Your task to perform on an android device: find photos in the google photos app Image 0: 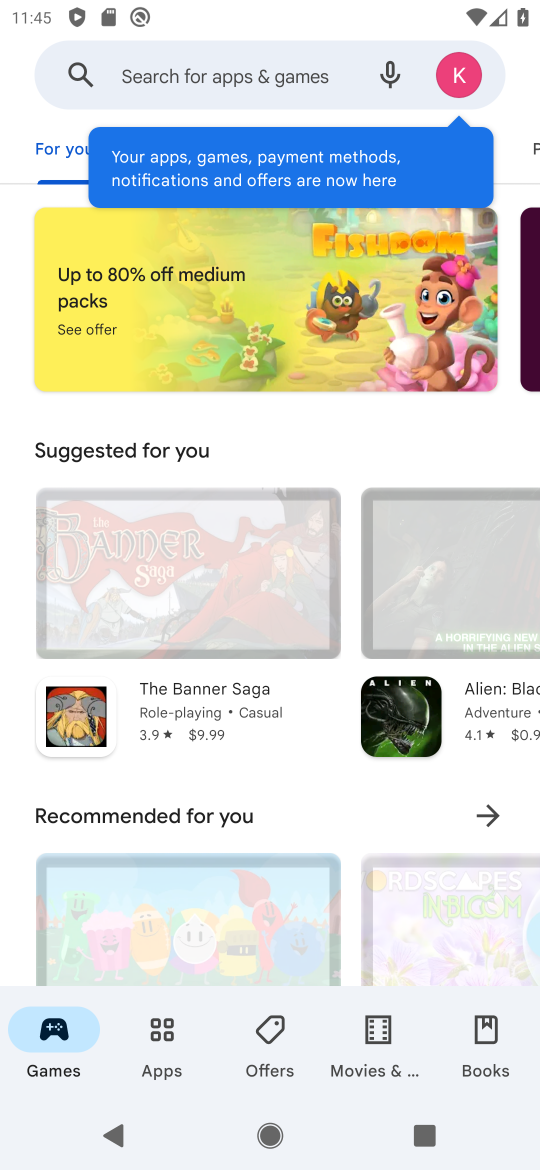
Step 0: press home button
Your task to perform on an android device: find photos in the google photos app Image 1: 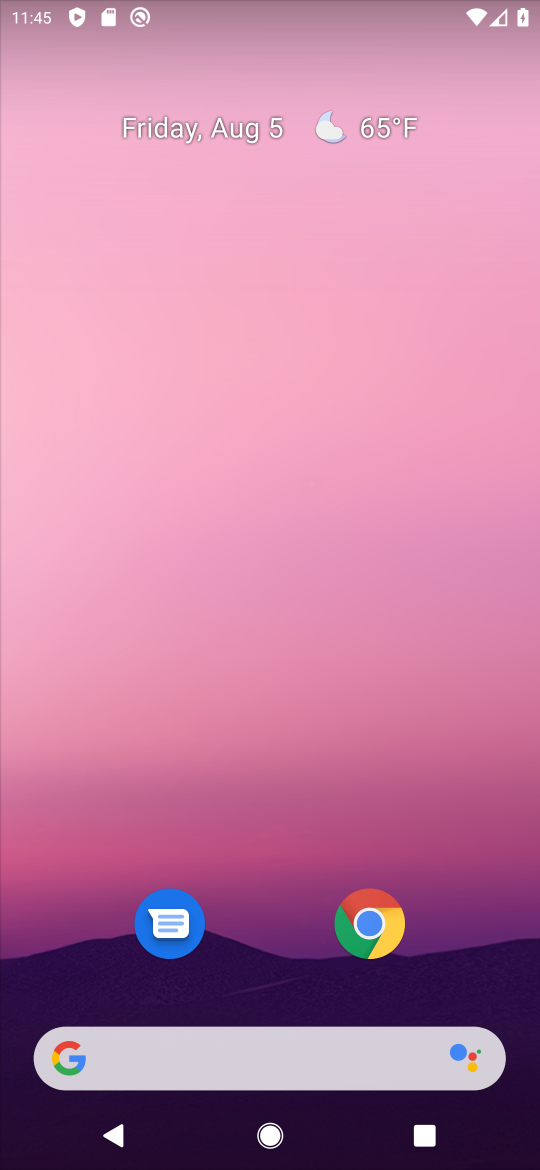
Step 1: drag from (447, 647) to (415, 326)
Your task to perform on an android device: find photos in the google photos app Image 2: 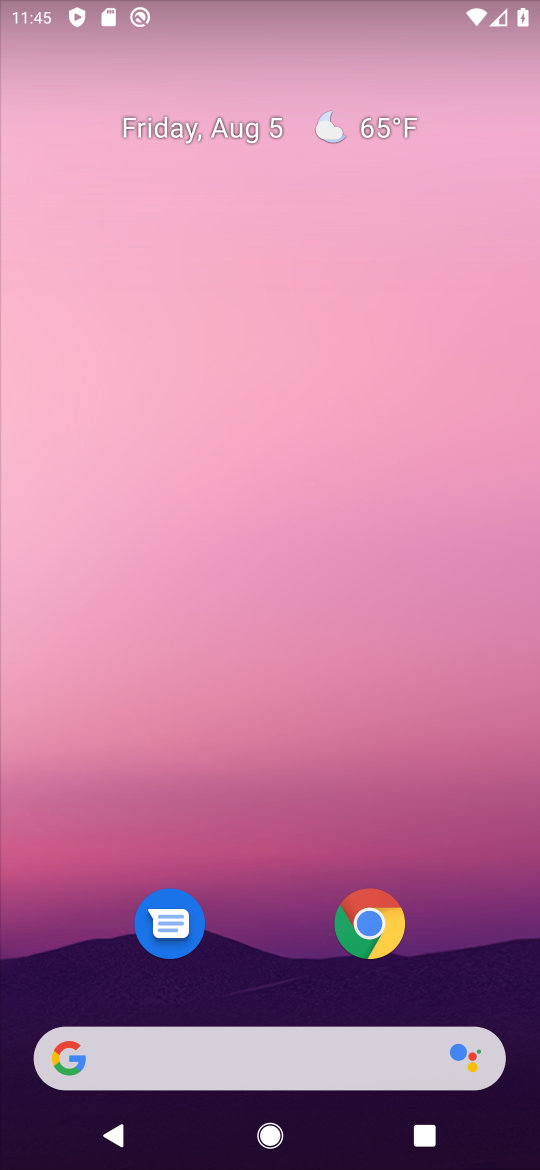
Step 2: drag from (447, 948) to (303, 53)
Your task to perform on an android device: find photos in the google photos app Image 3: 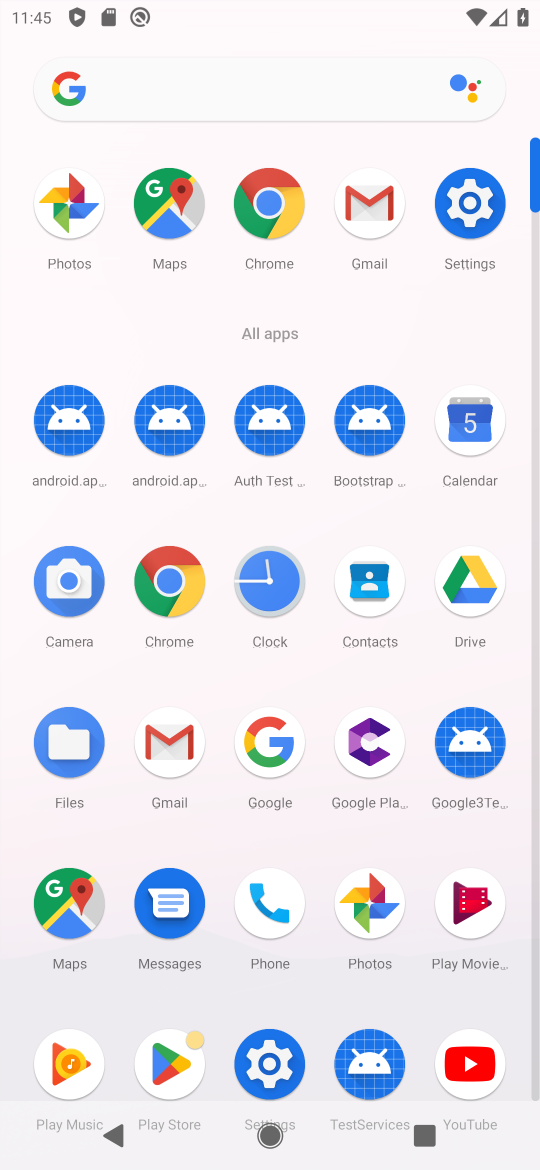
Step 3: click (53, 208)
Your task to perform on an android device: find photos in the google photos app Image 4: 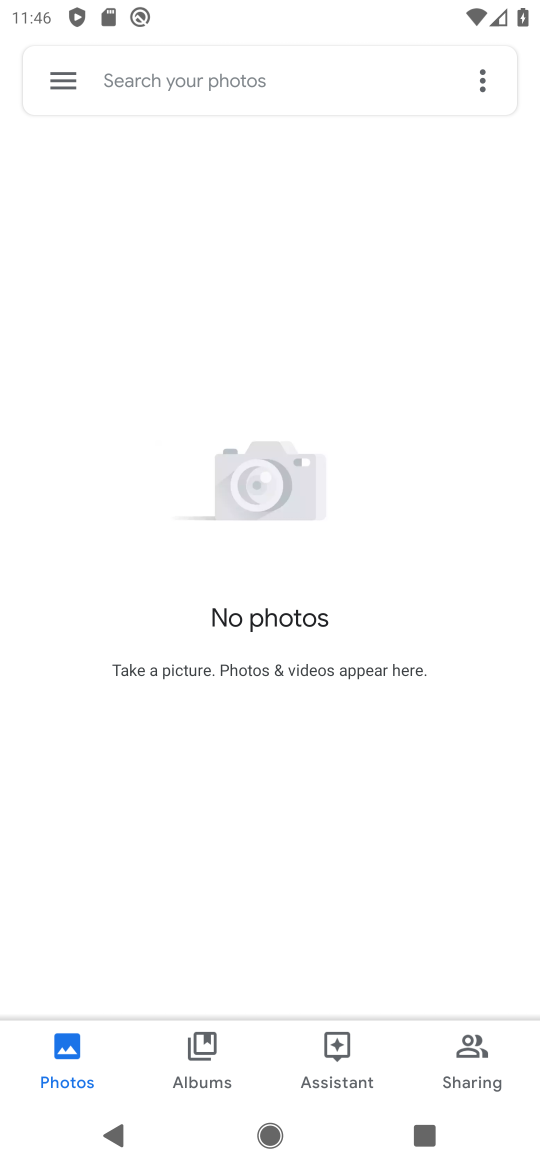
Step 4: task complete